Your task to perform on an android device: Is it going to rain today? Image 0: 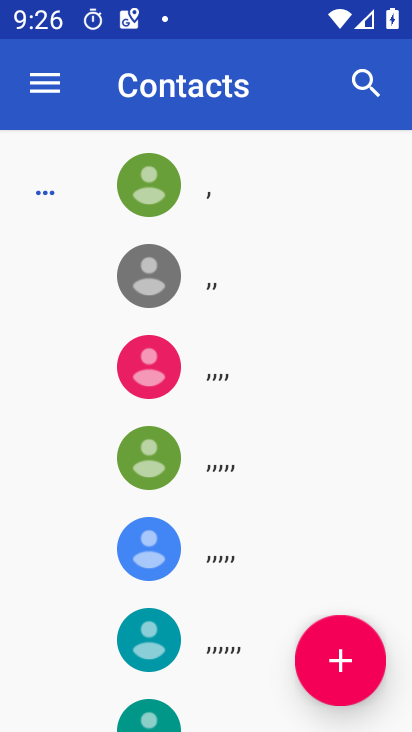
Step 0: press home button
Your task to perform on an android device: Is it going to rain today? Image 1: 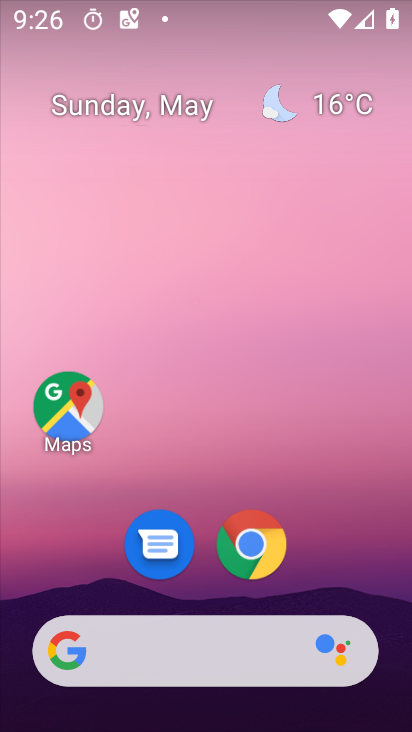
Step 1: drag from (303, 574) to (223, 8)
Your task to perform on an android device: Is it going to rain today? Image 2: 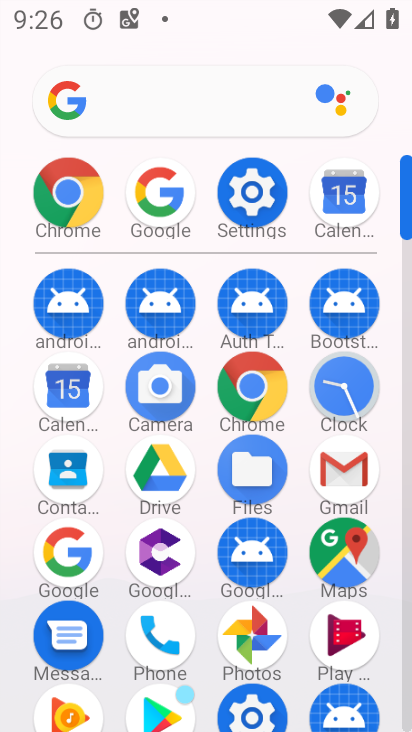
Step 2: click (70, 560)
Your task to perform on an android device: Is it going to rain today? Image 3: 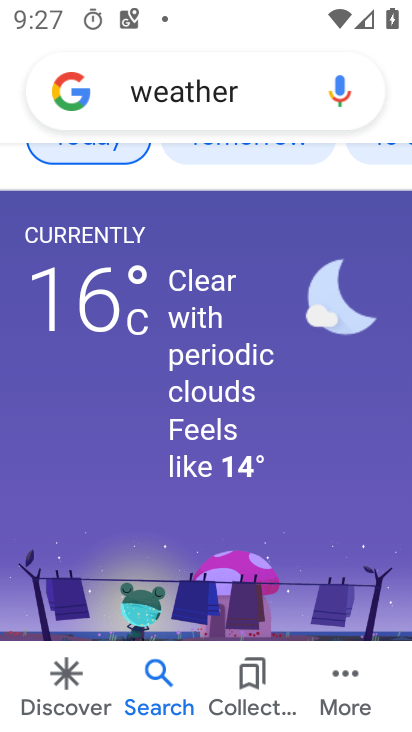
Step 3: task complete